Your task to perform on an android device: Go to notification settings Image 0: 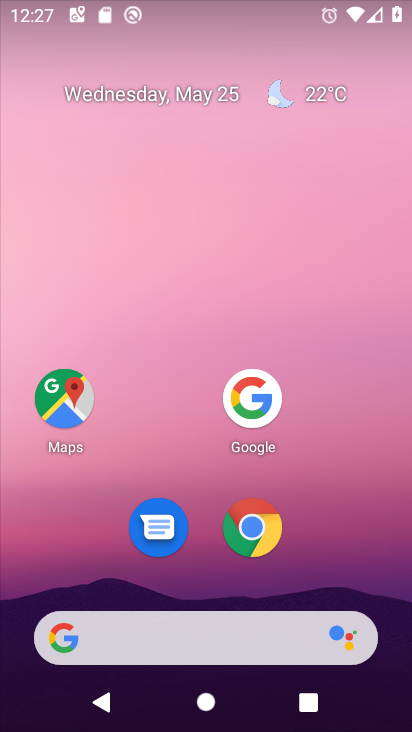
Step 0: press home button
Your task to perform on an android device: Go to notification settings Image 1: 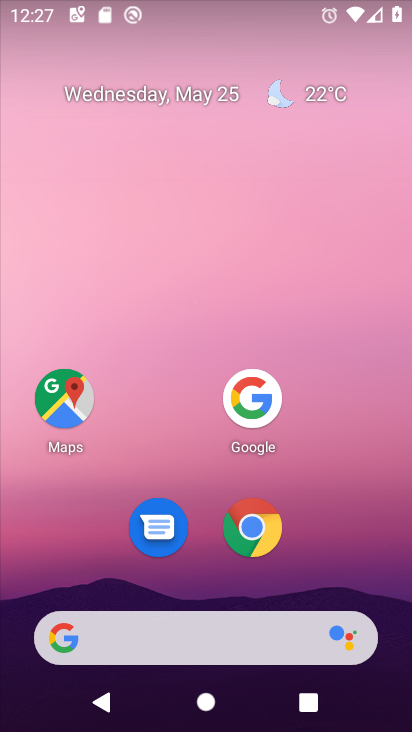
Step 1: drag from (193, 642) to (336, 86)
Your task to perform on an android device: Go to notification settings Image 2: 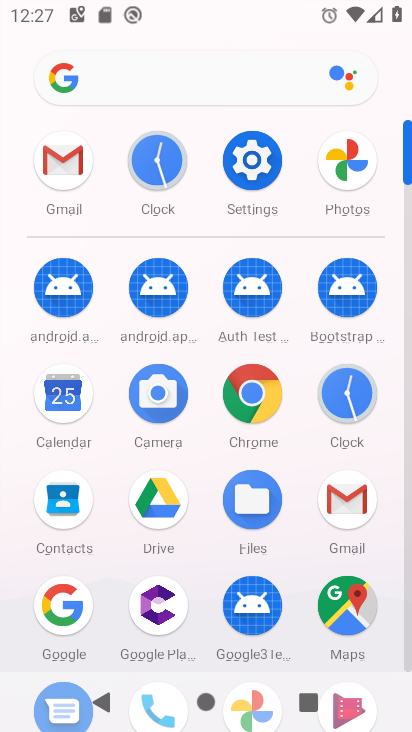
Step 2: click (255, 174)
Your task to perform on an android device: Go to notification settings Image 3: 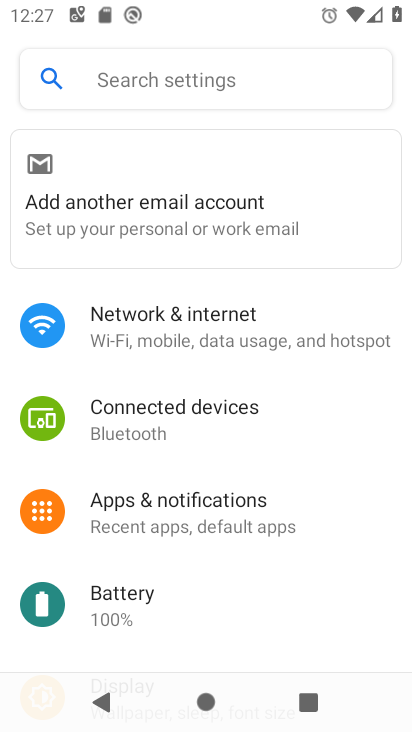
Step 3: click (216, 508)
Your task to perform on an android device: Go to notification settings Image 4: 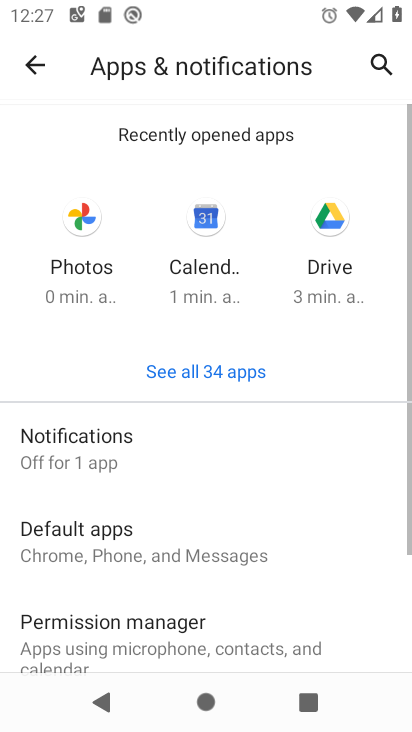
Step 4: click (100, 448)
Your task to perform on an android device: Go to notification settings Image 5: 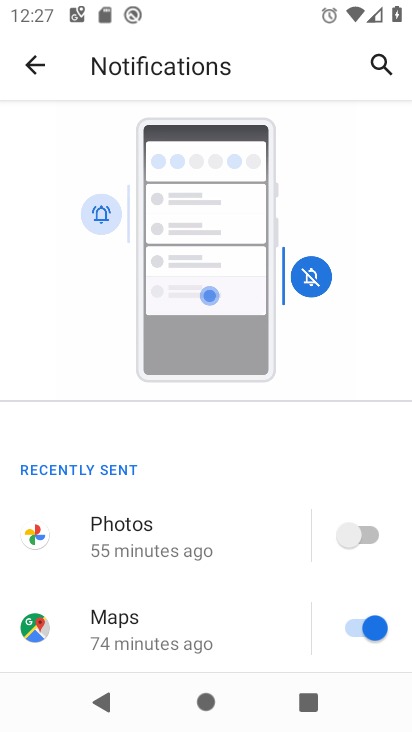
Step 5: task complete